Your task to perform on an android device: turn off sleep mode Image 0: 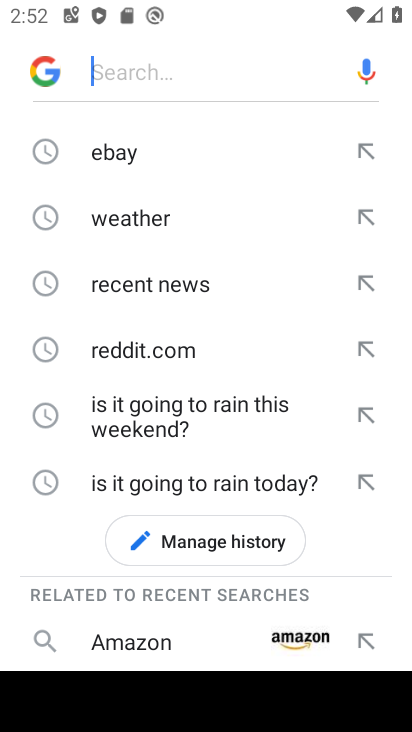
Step 0: press home button
Your task to perform on an android device: turn off sleep mode Image 1: 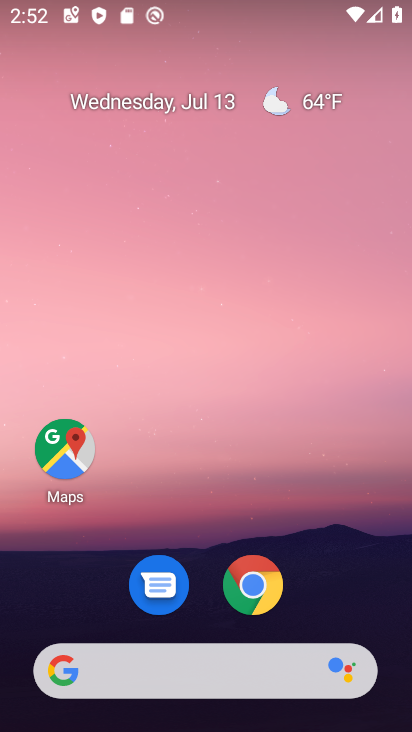
Step 1: drag from (187, 671) to (317, 132)
Your task to perform on an android device: turn off sleep mode Image 2: 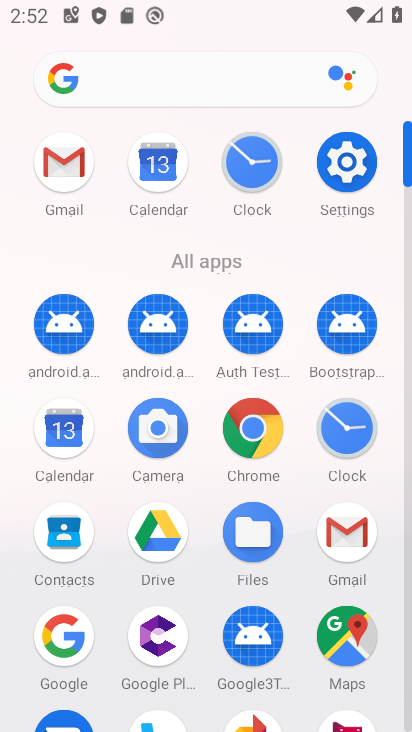
Step 2: click (347, 178)
Your task to perform on an android device: turn off sleep mode Image 3: 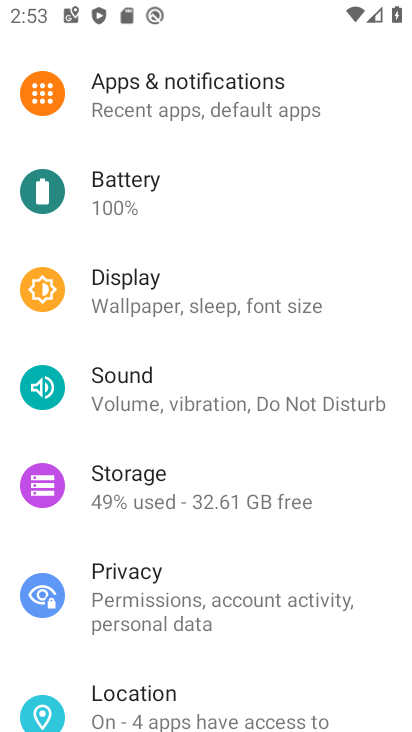
Step 3: click (225, 301)
Your task to perform on an android device: turn off sleep mode Image 4: 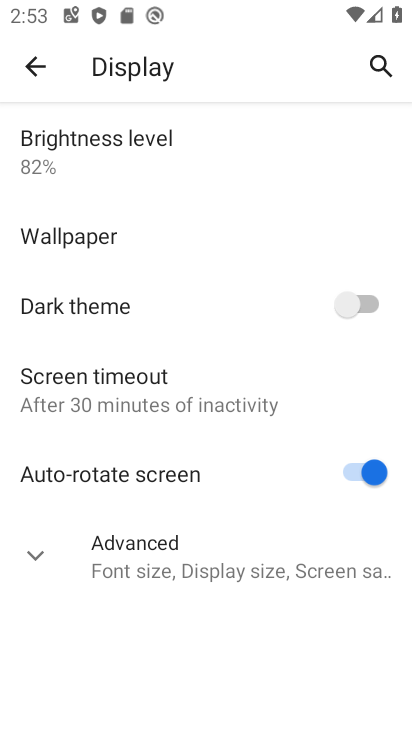
Step 4: task complete